Your task to perform on an android device: Open CNN.com Image 0: 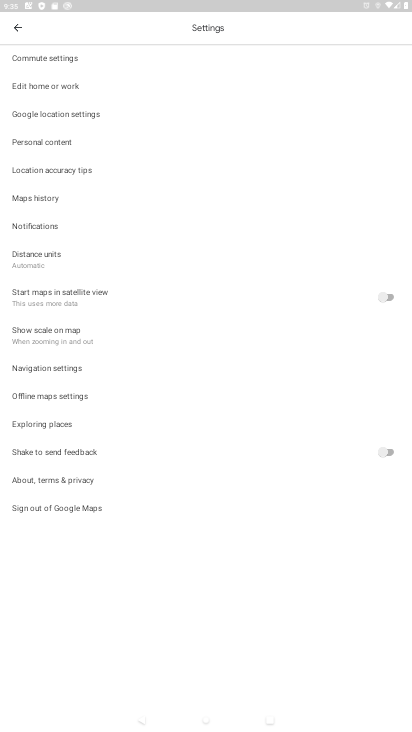
Step 0: press home button
Your task to perform on an android device: Open CNN.com Image 1: 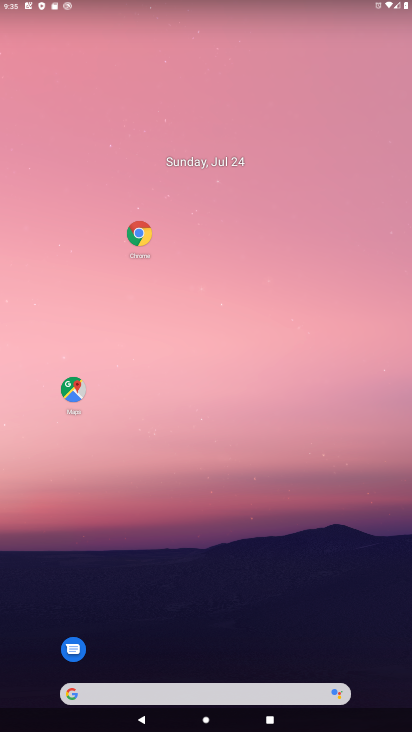
Step 1: click (130, 234)
Your task to perform on an android device: Open CNN.com Image 2: 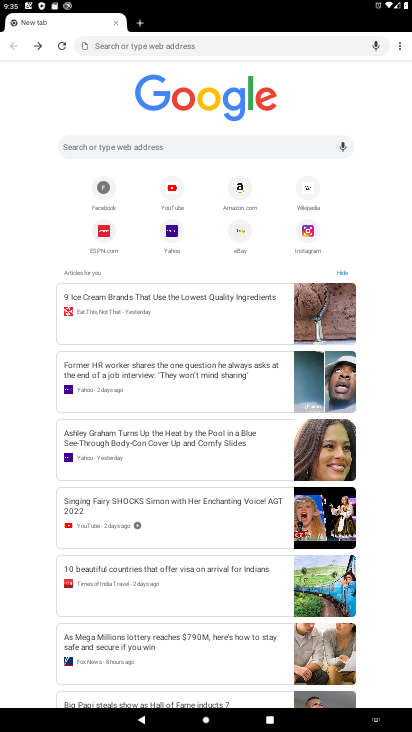
Step 2: click (191, 41)
Your task to perform on an android device: Open CNN.com Image 3: 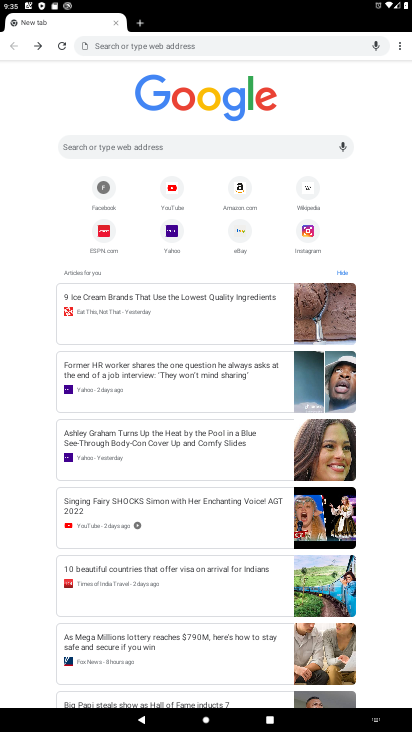
Step 3: type "www.cnn.com"
Your task to perform on an android device: Open CNN.com Image 4: 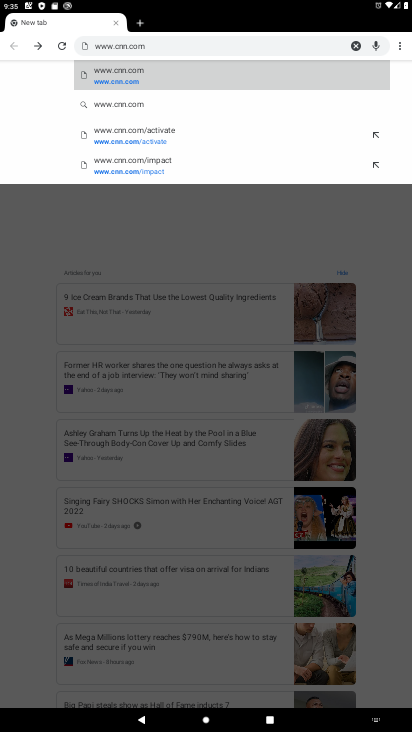
Step 4: click (110, 71)
Your task to perform on an android device: Open CNN.com Image 5: 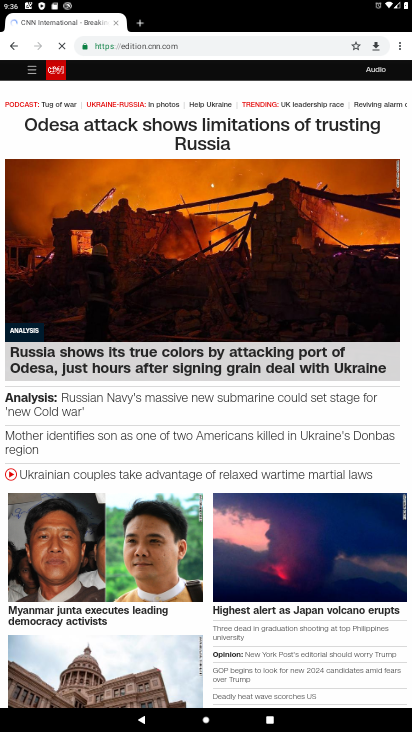
Step 5: task complete